Your task to perform on an android device: open wifi settings Image 0: 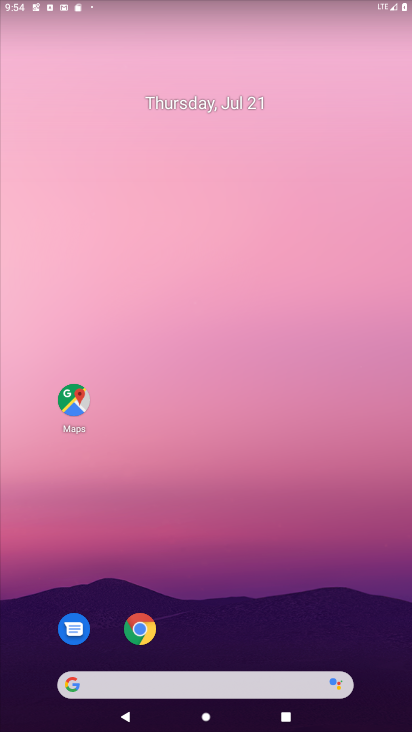
Step 0: drag from (205, 626) to (276, 51)
Your task to perform on an android device: open wifi settings Image 1: 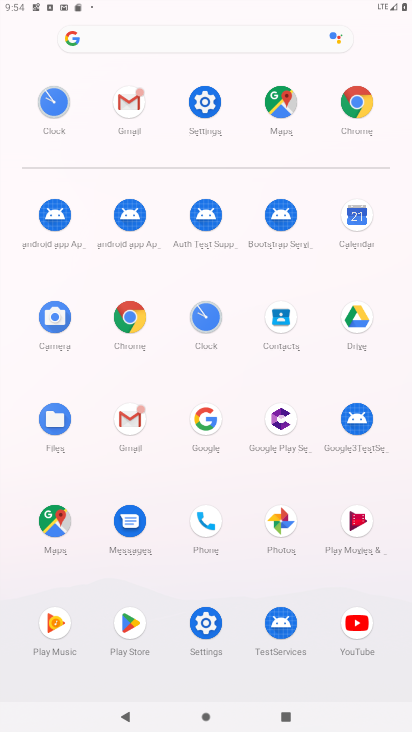
Step 1: click (211, 114)
Your task to perform on an android device: open wifi settings Image 2: 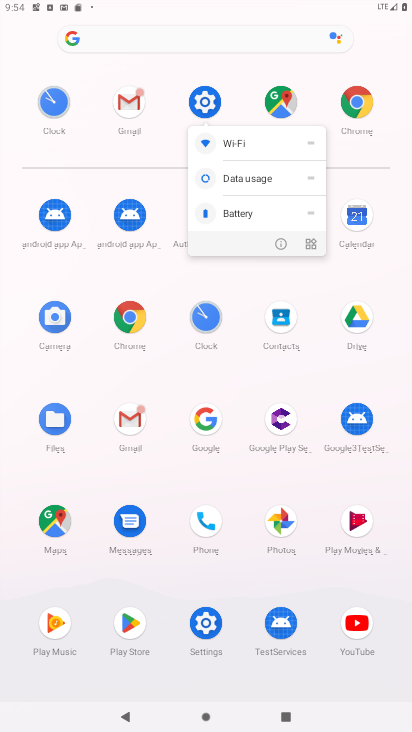
Step 2: click (192, 638)
Your task to perform on an android device: open wifi settings Image 3: 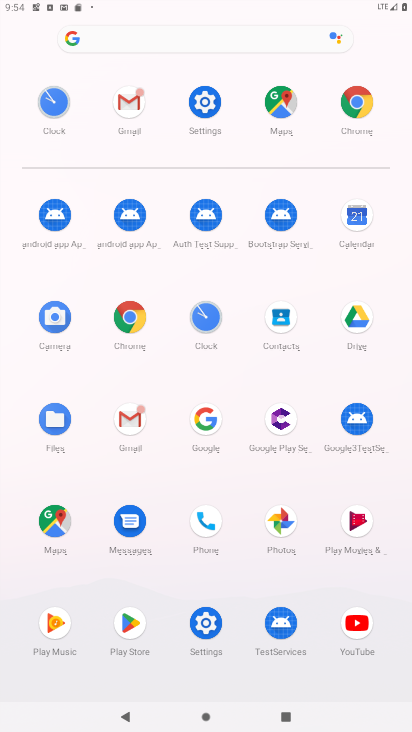
Step 3: click (200, 631)
Your task to perform on an android device: open wifi settings Image 4: 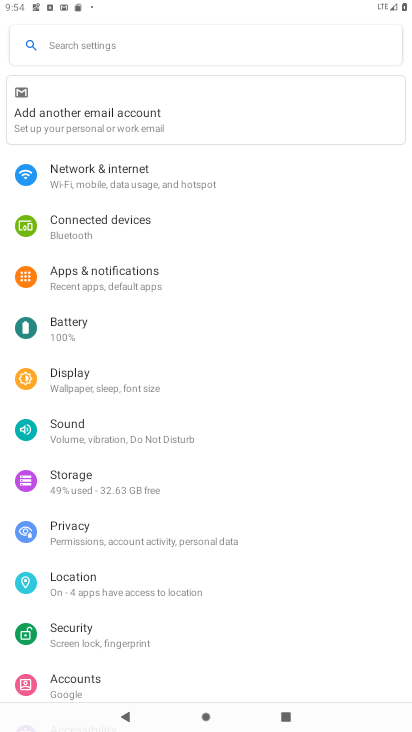
Step 4: click (171, 179)
Your task to perform on an android device: open wifi settings Image 5: 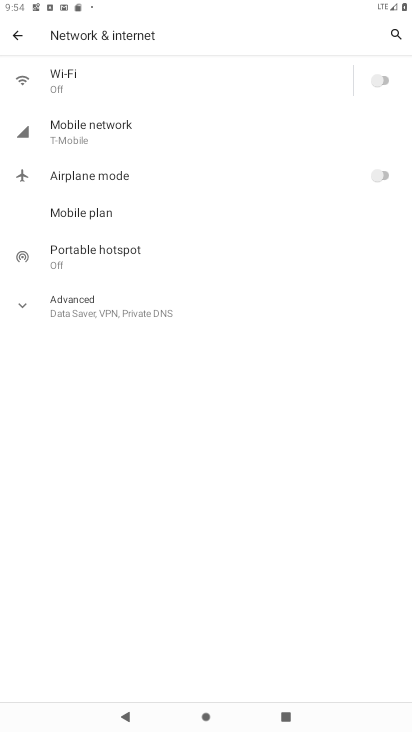
Step 5: click (128, 78)
Your task to perform on an android device: open wifi settings Image 6: 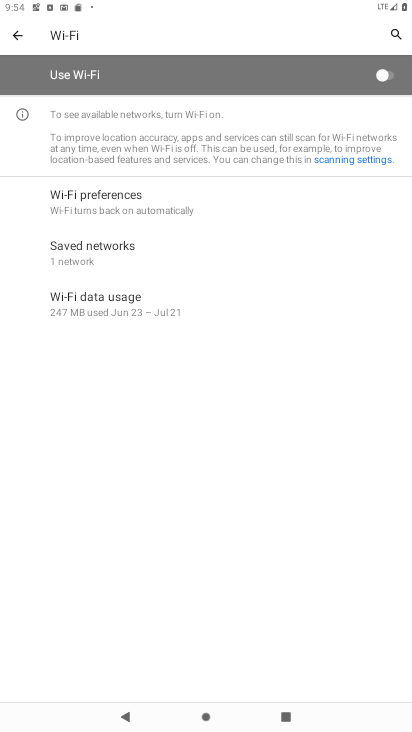
Step 6: task complete